Your task to perform on an android device: check the backup settings in the google photos Image 0: 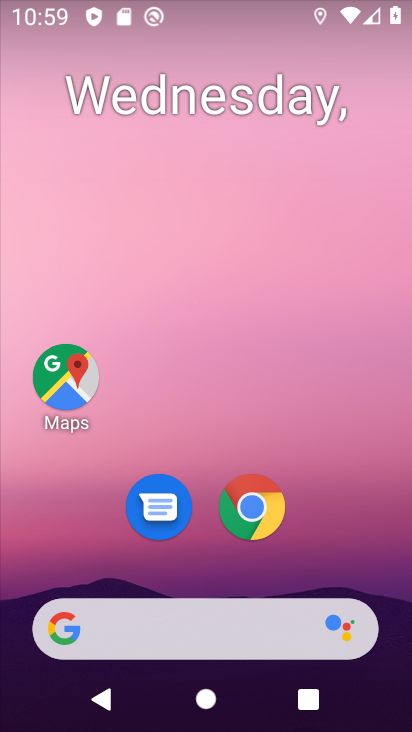
Step 0: drag from (334, 550) to (371, 129)
Your task to perform on an android device: check the backup settings in the google photos Image 1: 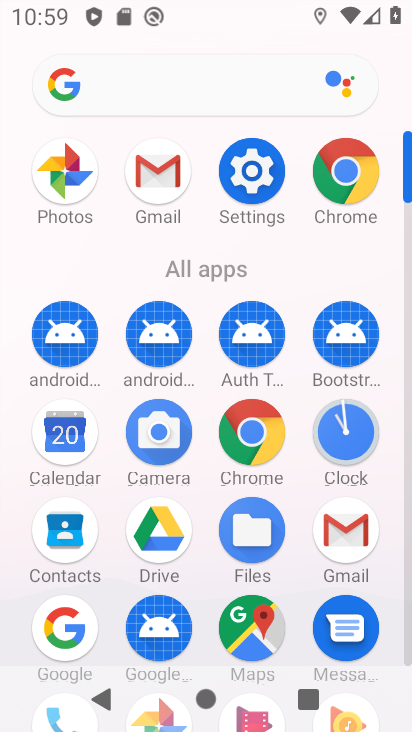
Step 1: drag from (195, 567) to (197, 296)
Your task to perform on an android device: check the backup settings in the google photos Image 2: 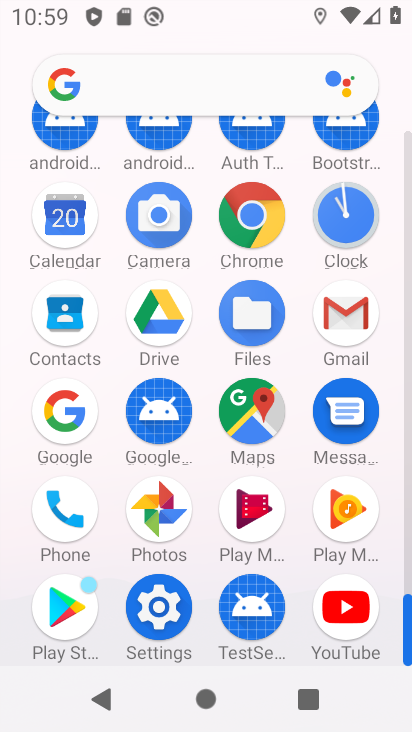
Step 2: click (170, 515)
Your task to perform on an android device: check the backup settings in the google photos Image 3: 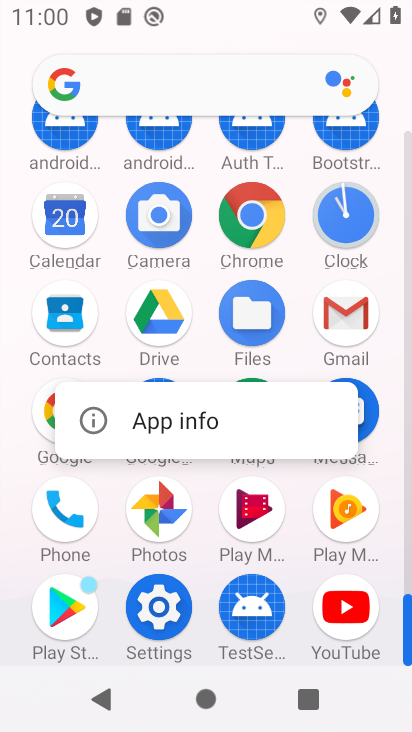
Step 3: click (159, 508)
Your task to perform on an android device: check the backup settings in the google photos Image 4: 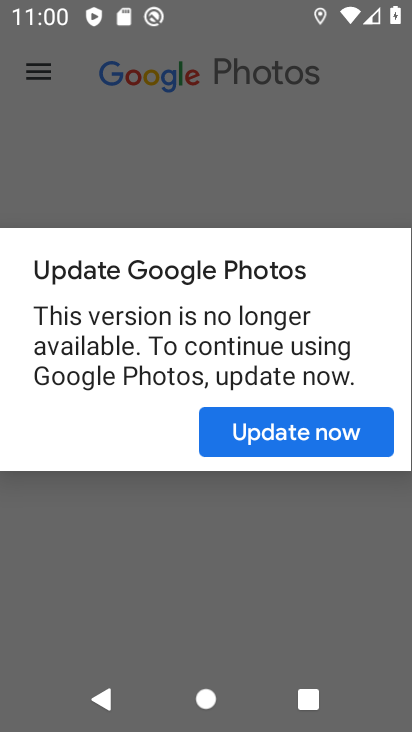
Step 4: click (302, 430)
Your task to perform on an android device: check the backup settings in the google photos Image 5: 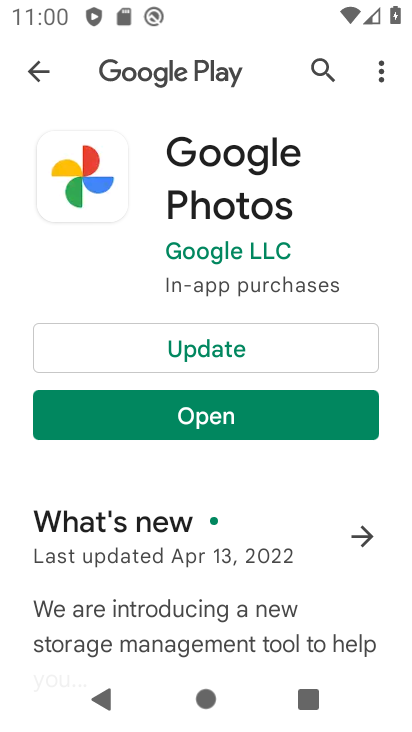
Step 5: click (251, 349)
Your task to perform on an android device: check the backup settings in the google photos Image 6: 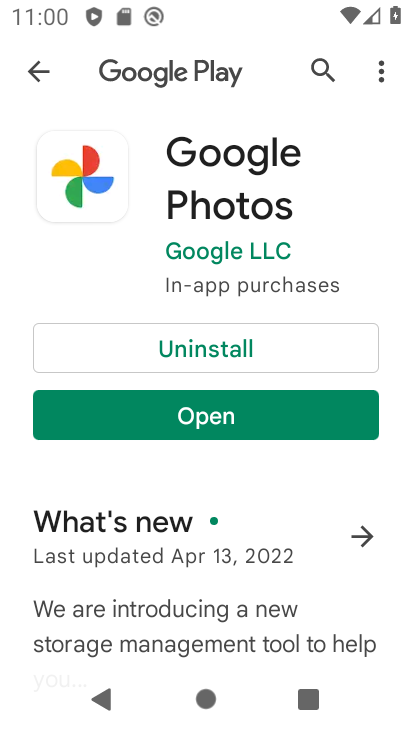
Step 6: click (315, 415)
Your task to perform on an android device: check the backup settings in the google photos Image 7: 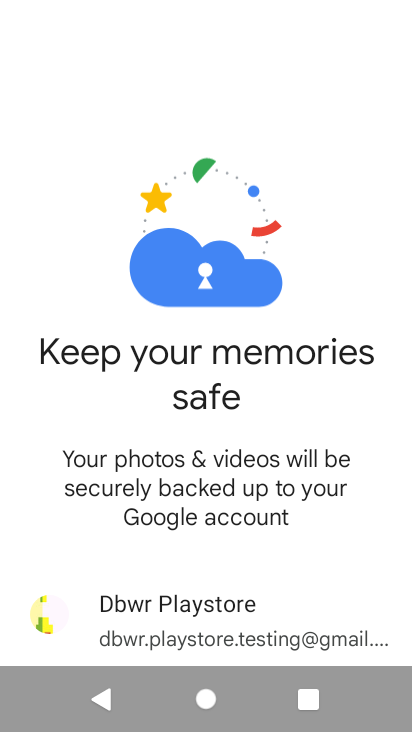
Step 7: drag from (361, 555) to (377, 263)
Your task to perform on an android device: check the backup settings in the google photos Image 8: 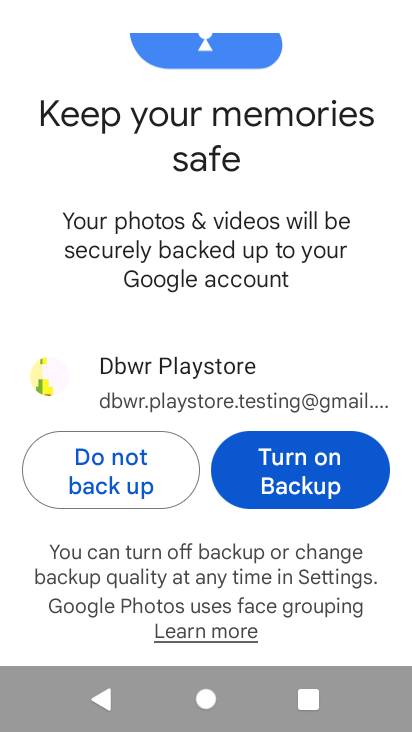
Step 8: click (298, 480)
Your task to perform on an android device: check the backup settings in the google photos Image 9: 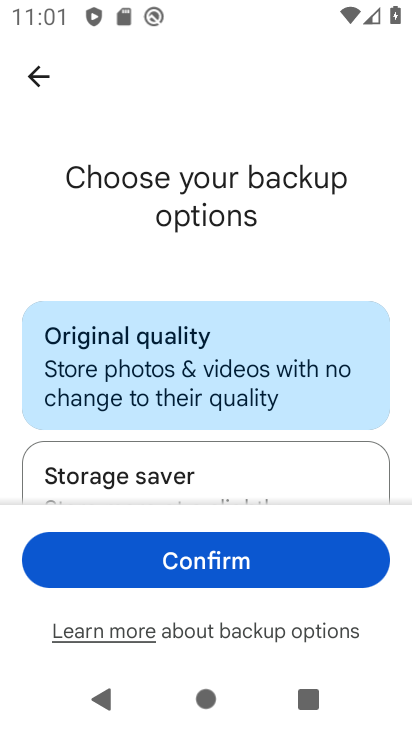
Step 9: click (245, 558)
Your task to perform on an android device: check the backup settings in the google photos Image 10: 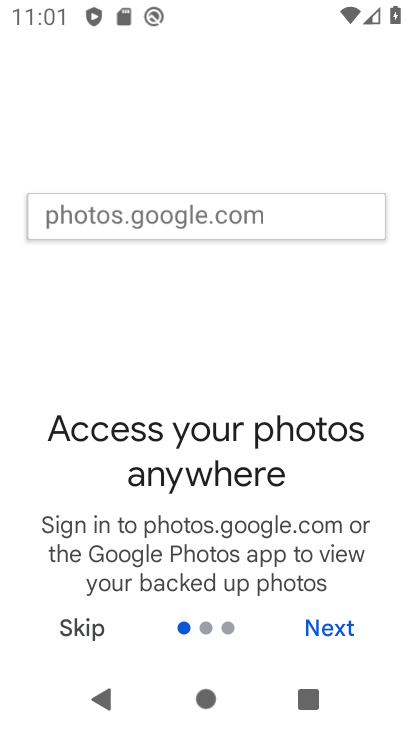
Step 10: click (340, 624)
Your task to perform on an android device: check the backup settings in the google photos Image 11: 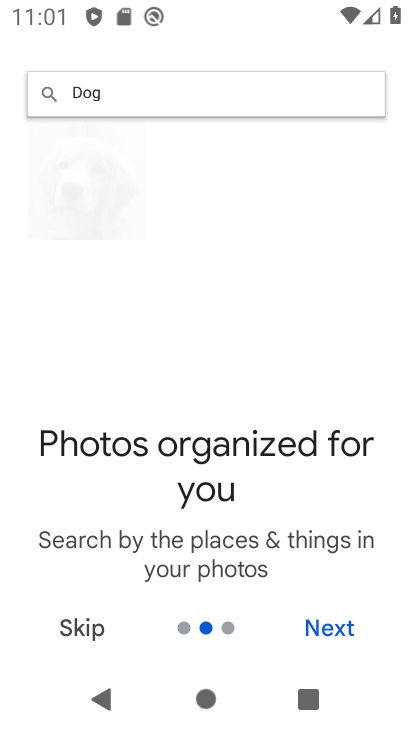
Step 11: click (340, 631)
Your task to perform on an android device: check the backup settings in the google photos Image 12: 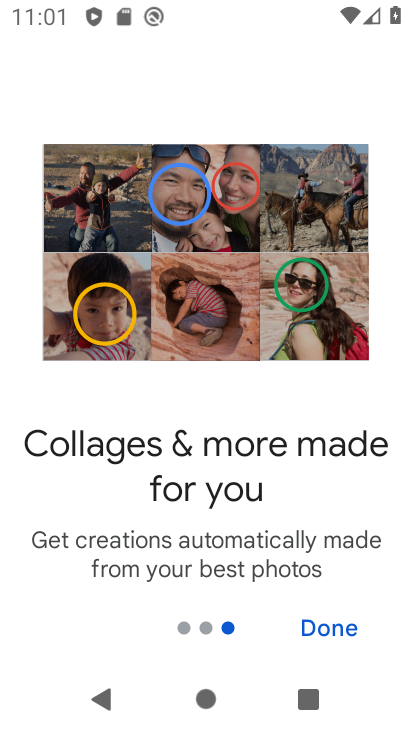
Step 12: click (313, 624)
Your task to perform on an android device: check the backup settings in the google photos Image 13: 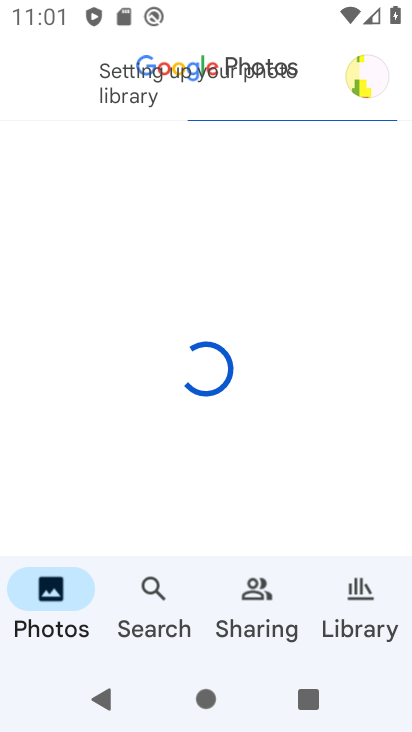
Step 13: click (363, 77)
Your task to perform on an android device: check the backup settings in the google photos Image 14: 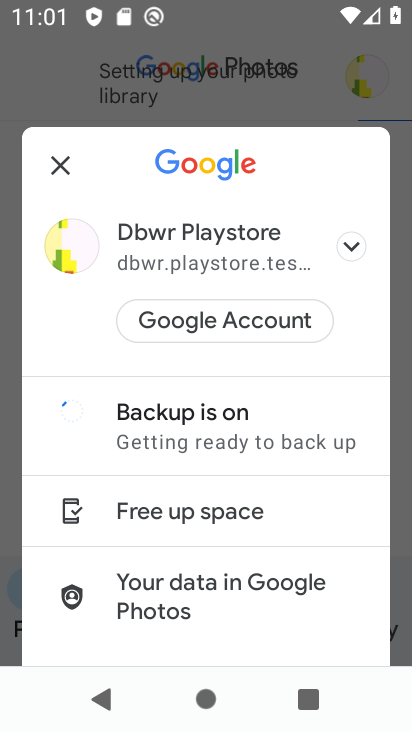
Step 14: drag from (291, 519) to (303, 301)
Your task to perform on an android device: check the backup settings in the google photos Image 15: 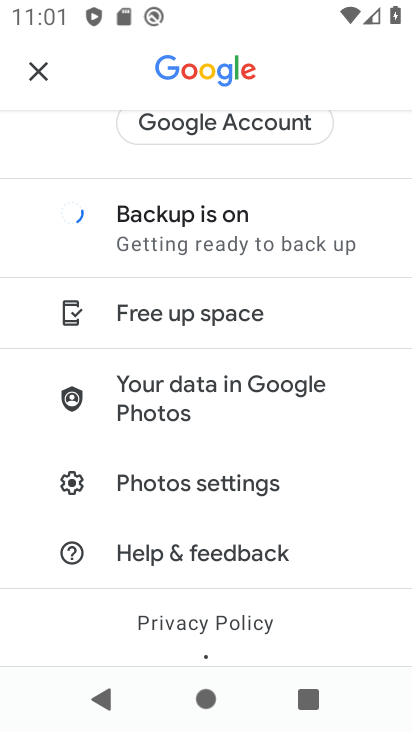
Step 15: click (251, 487)
Your task to perform on an android device: check the backup settings in the google photos Image 16: 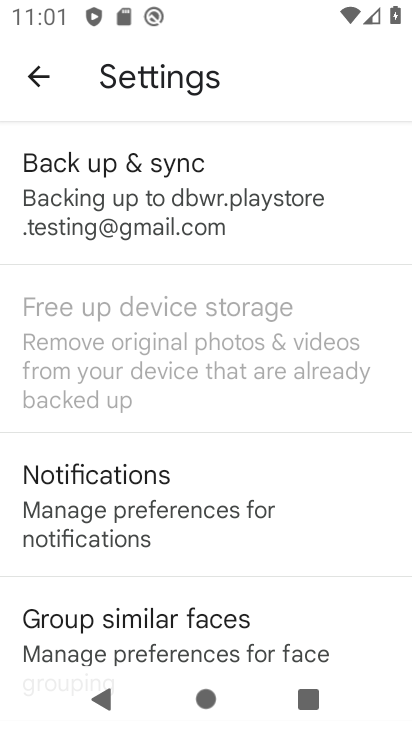
Step 16: click (234, 201)
Your task to perform on an android device: check the backup settings in the google photos Image 17: 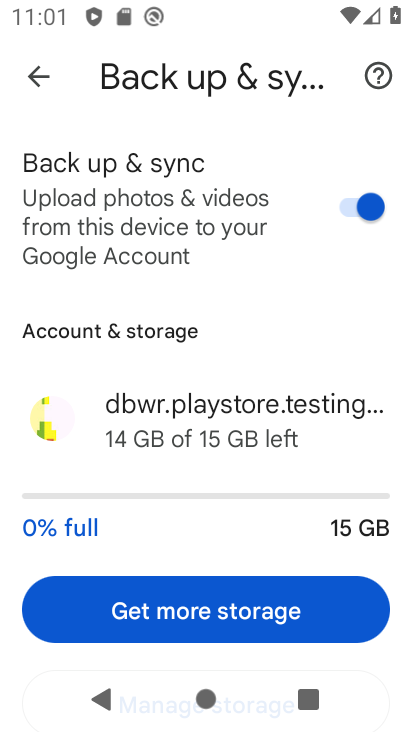
Step 17: task complete